Your task to perform on an android device: Open calendar and show me the second week of next month Image 0: 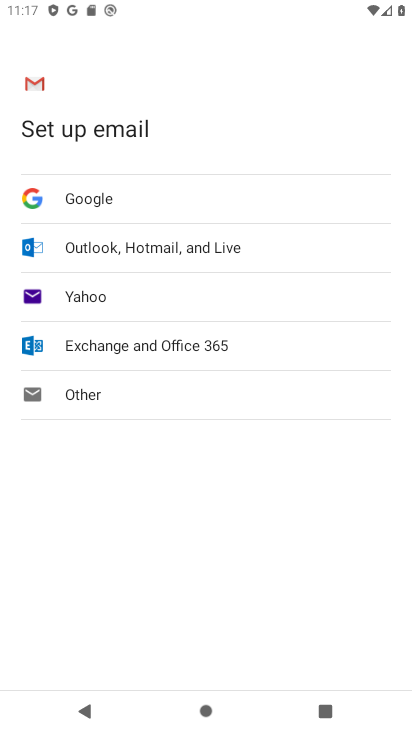
Step 0: press home button
Your task to perform on an android device: Open calendar and show me the second week of next month Image 1: 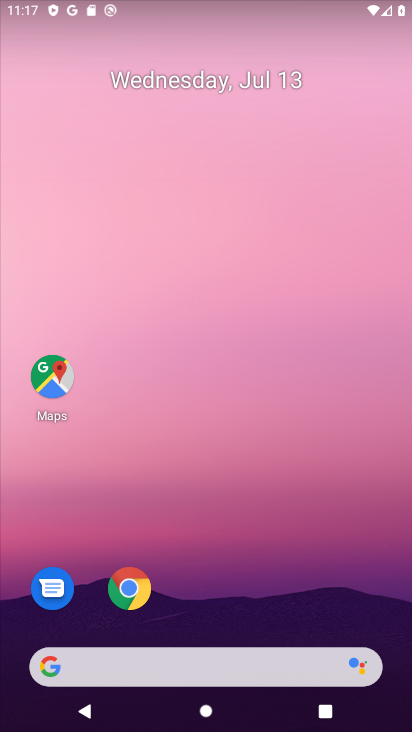
Step 1: drag from (200, 607) to (218, 205)
Your task to perform on an android device: Open calendar and show me the second week of next month Image 2: 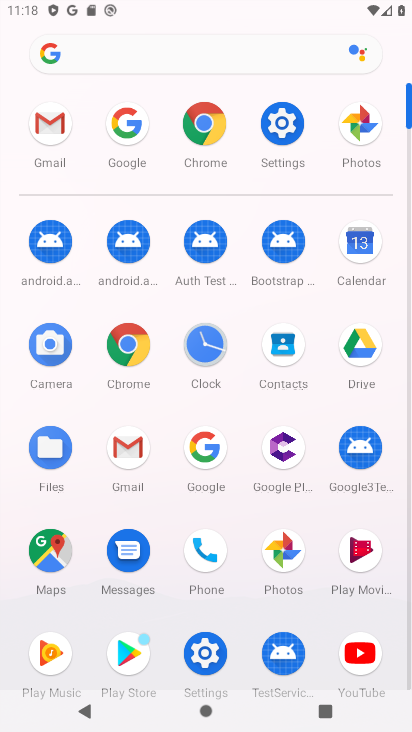
Step 2: click (356, 239)
Your task to perform on an android device: Open calendar and show me the second week of next month Image 3: 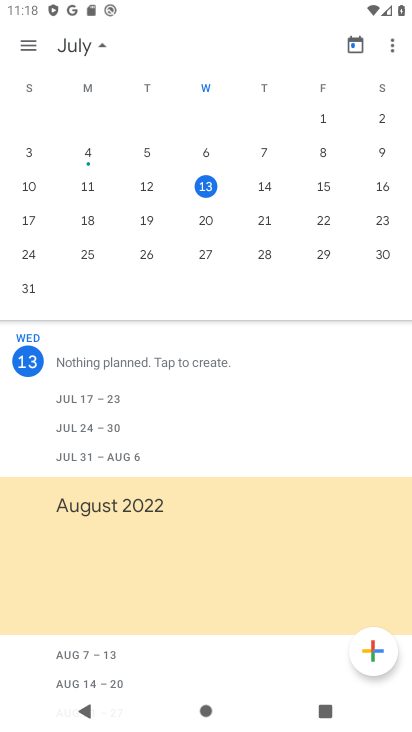
Step 3: drag from (393, 293) to (11, 232)
Your task to perform on an android device: Open calendar and show me the second week of next month Image 4: 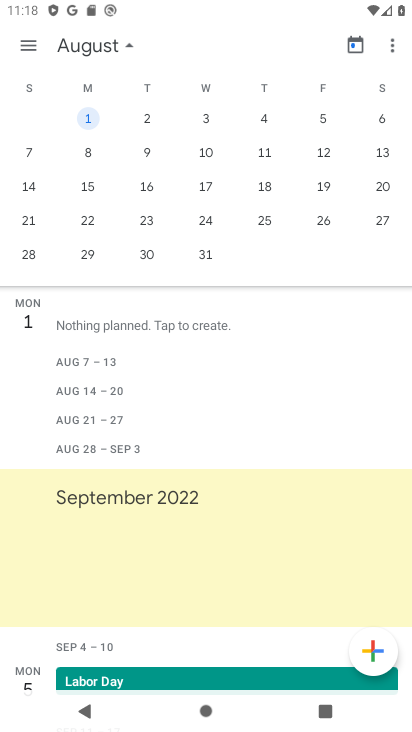
Step 4: click (331, 152)
Your task to perform on an android device: Open calendar and show me the second week of next month Image 5: 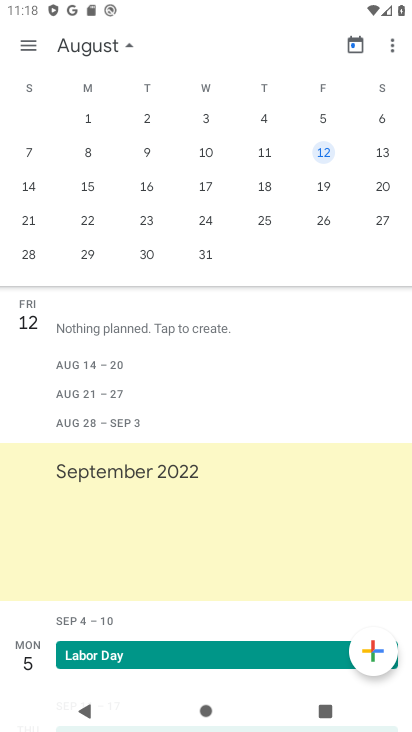
Step 5: task complete